Your task to perform on an android device: Open accessibility settings Image 0: 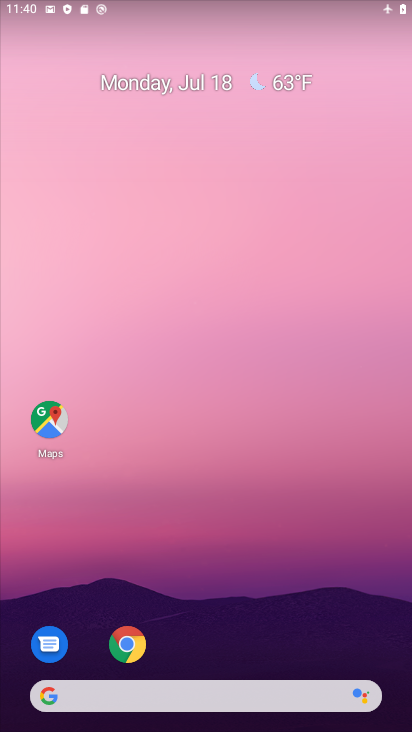
Step 0: drag from (232, 565) to (86, 30)
Your task to perform on an android device: Open accessibility settings Image 1: 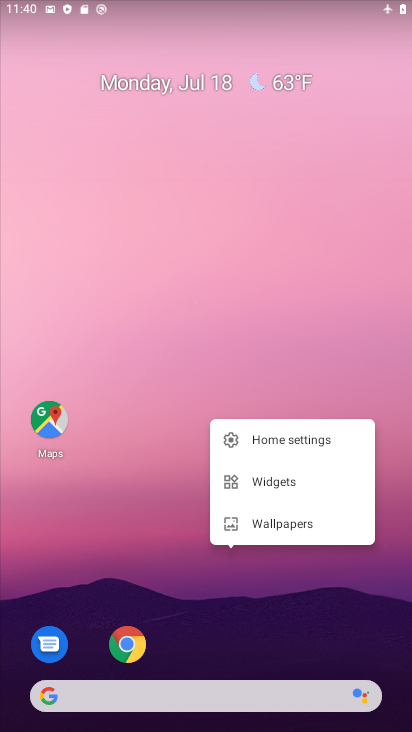
Step 1: click (176, 513)
Your task to perform on an android device: Open accessibility settings Image 2: 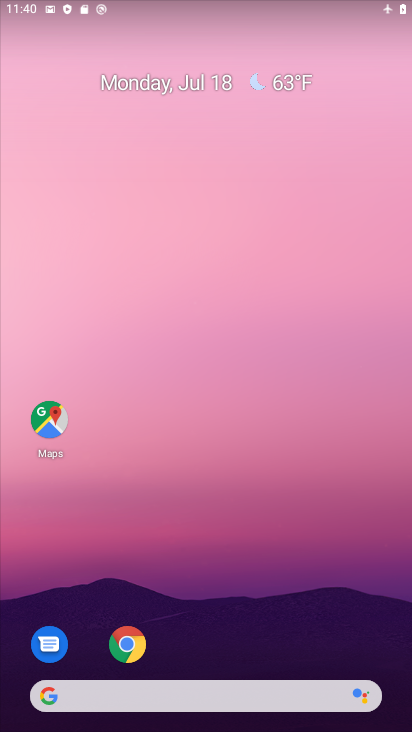
Step 2: drag from (300, 620) to (282, 299)
Your task to perform on an android device: Open accessibility settings Image 3: 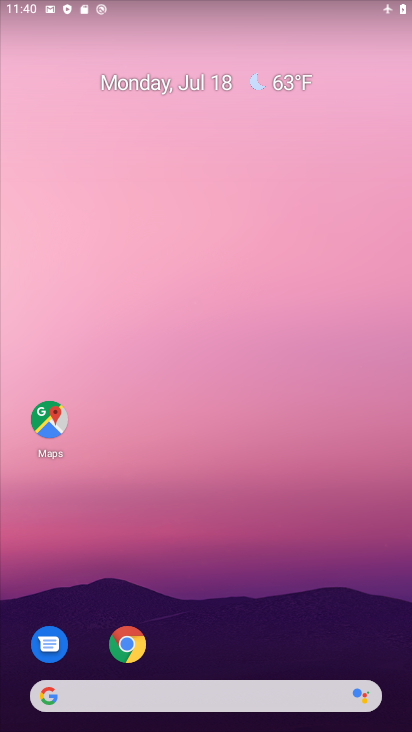
Step 3: drag from (253, 606) to (372, 29)
Your task to perform on an android device: Open accessibility settings Image 4: 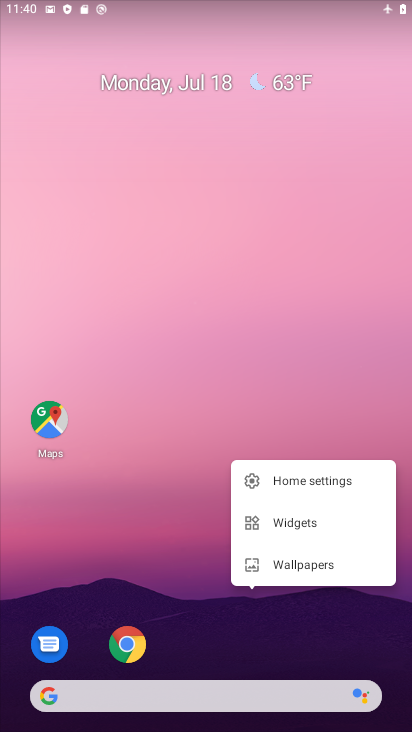
Step 4: click (202, 489)
Your task to perform on an android device: Open accessibility settings Image 5: 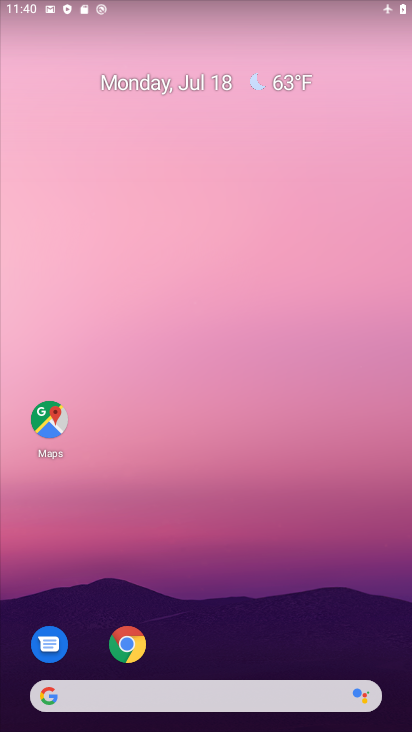
Step 5: drag from (213, 571) to (218, 46)
Your task to perform on an android device: Open accessibility settings Image 6: 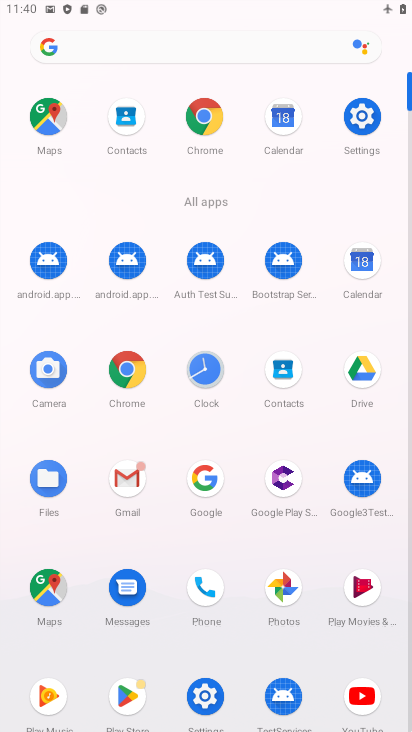
Step 6: click (358, 122)
Your task to perform on an android device: Open accessibility settings Image 7: 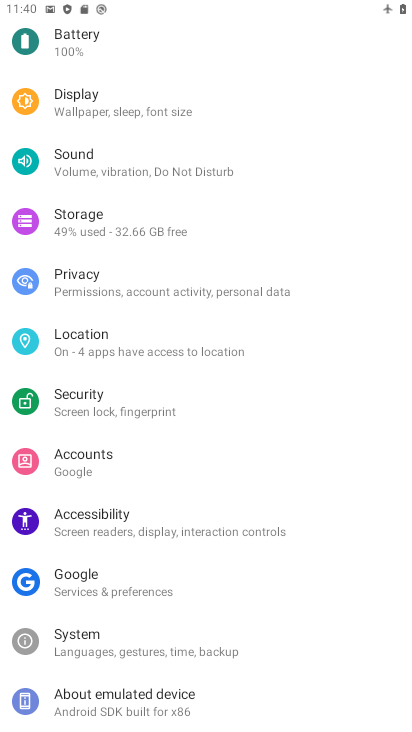
Step 7: click (83, 518)
Your task to perform on an android device: Open accessibility settings Image 8: 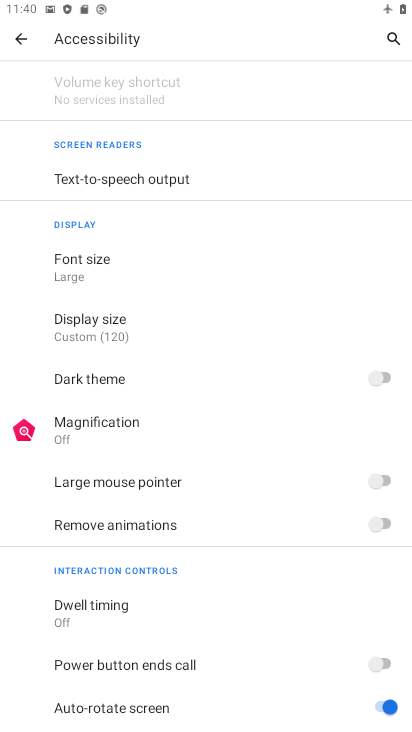
Step 8: task complete